Your task to perform on an android device: turn pop-ups off in chrome Image 0: 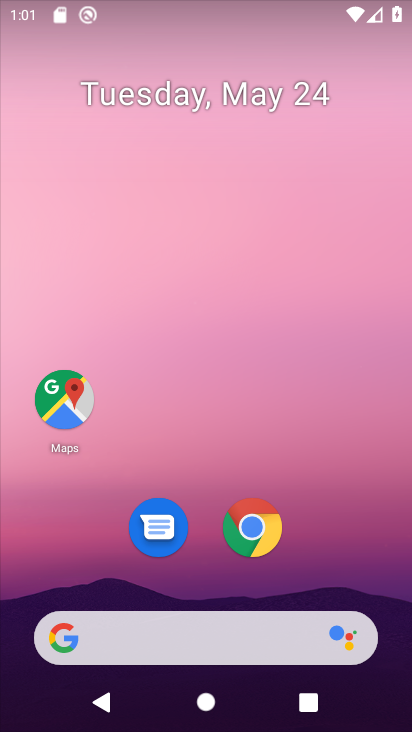
Step 0: drag from (216, 557) to (224, 9)
Your task to perform on an android device: turn pop-ups off in chrome Image 1: 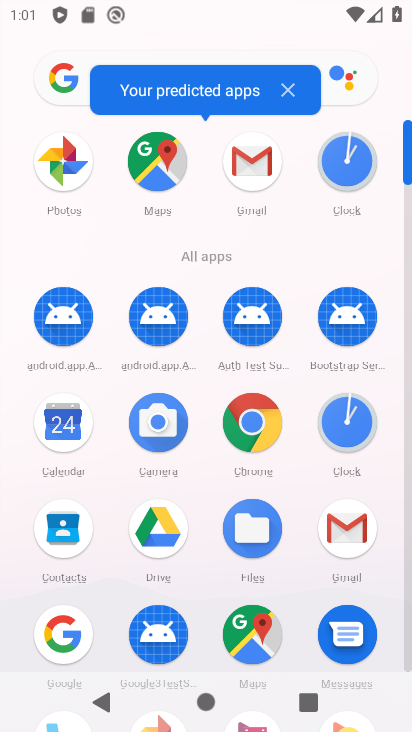
Step 1: click (248, 432)
Your task to perform on an android device: turn pop-ups off in chrome Image 2: 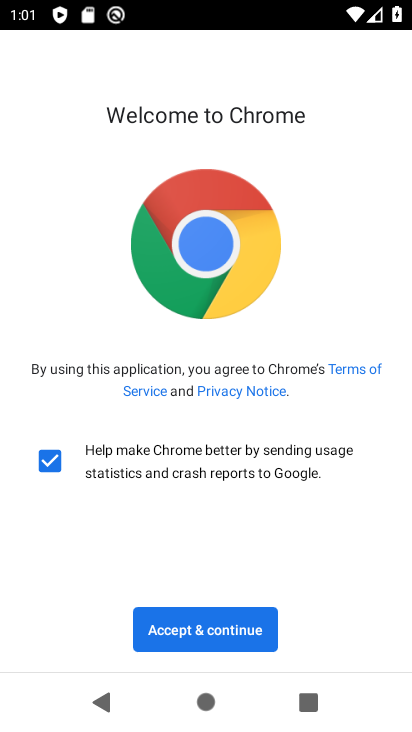
Step 2: click (215, 619)
Your task to perform on an android device: turn pop-ups off in chrome Image 3: 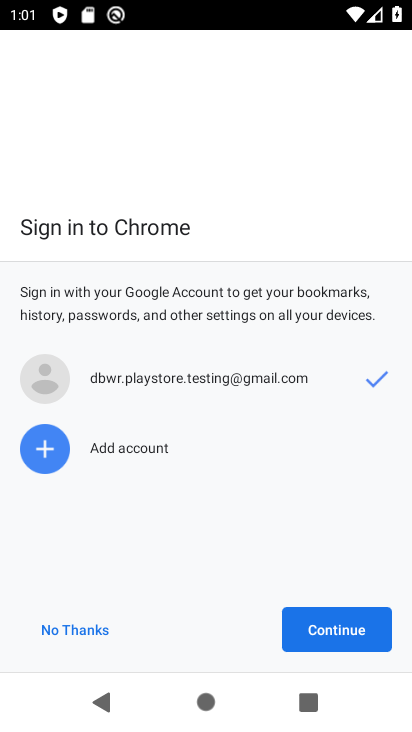
Step 3: click (310, 641)
Your task to perform on an android device: turn pop-ups off in chrome Image 4: 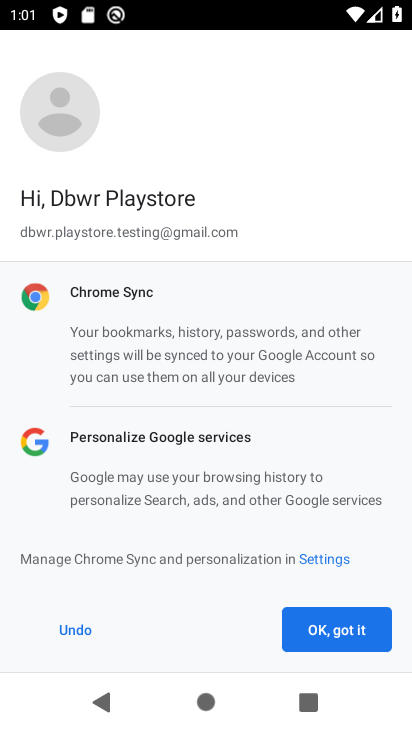
Step 4: click (310, 641)
Your task to perform on an android device: turn pop-ups off in chrome Image 5: 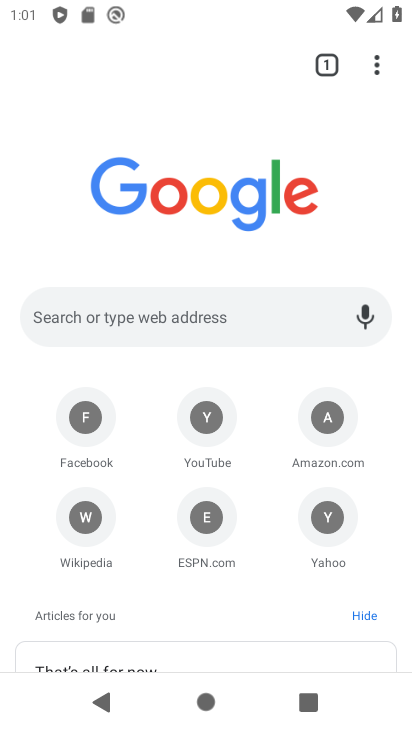
Step 5: click (377, 64)
Your task to perform on an android device: turn pop-ups off in chrome Image 6: 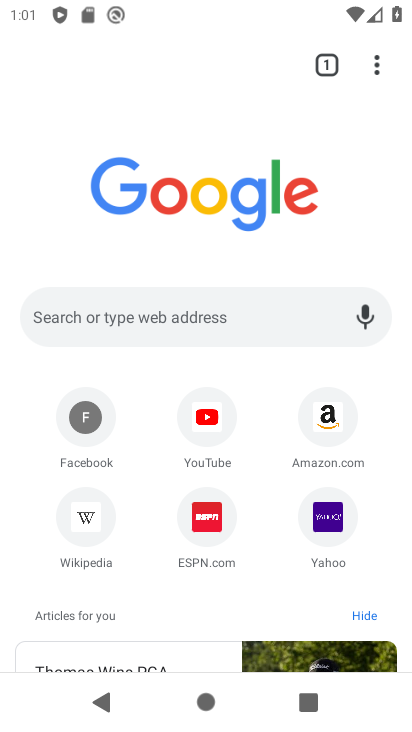
Step 6: click (380, 66)
Your task to perform on an android device: turn pop-ups off in chrome Image 7: 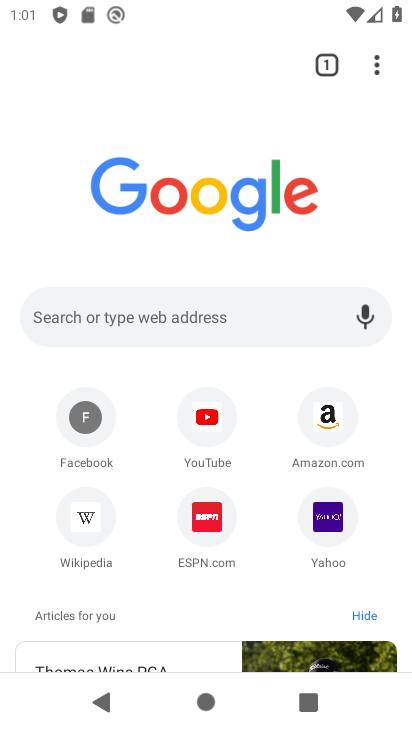
Step 7: click (380, 71)
Your task to perform on an android device: turn pop-ups off in chrome Image 8: 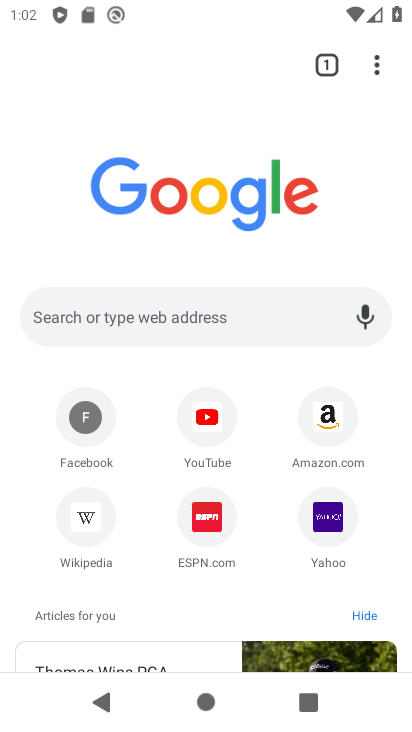
Step 8: click (373, 60)
Your task to perform on an android device: turn pop-ups off in chrome Image 9: 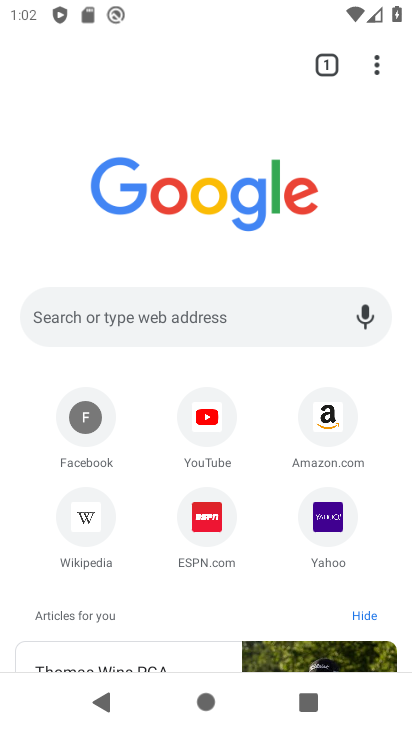
Step 9: click (375, 61)
Your task to perform on an android device: turn pop-ups off in chrome Image 10: 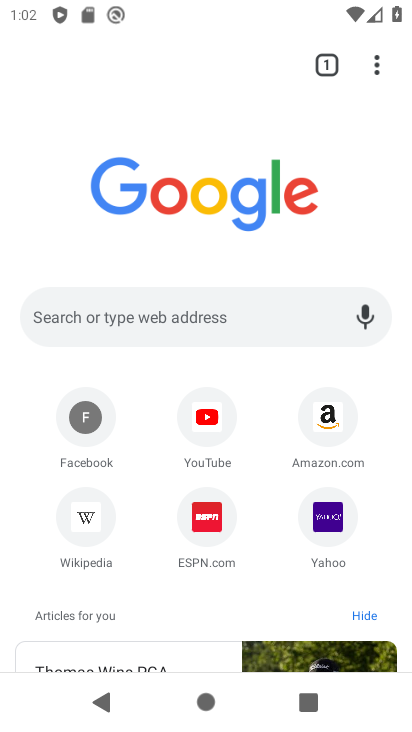
Step 10: click (381, 71)
Your task to perform on an android device: turn pop-ups off in chrome Image 11: 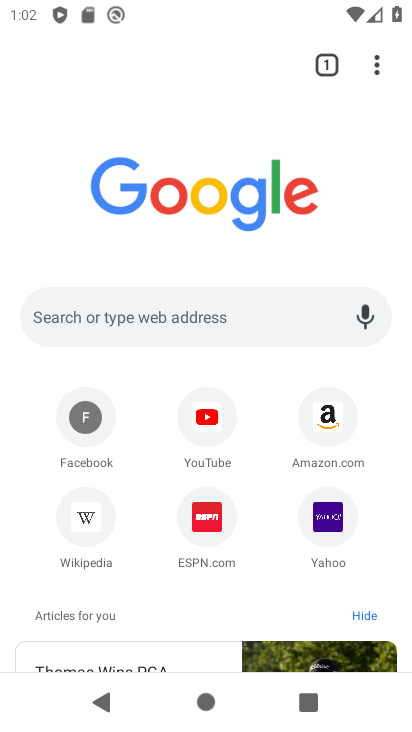
Step 11: click (380, 69)
Your task to perform on an android device: turn pop-ups off in chrome Image 12: 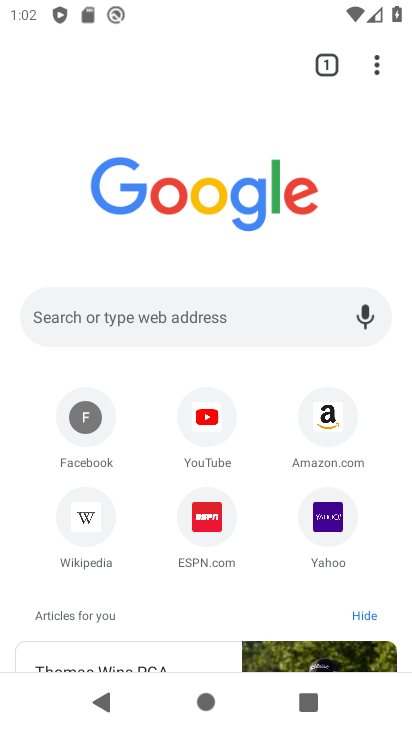
Step 12: click (377, 61)
Your task to perform on an android device: turn pop-ups off in chrome Image 13: 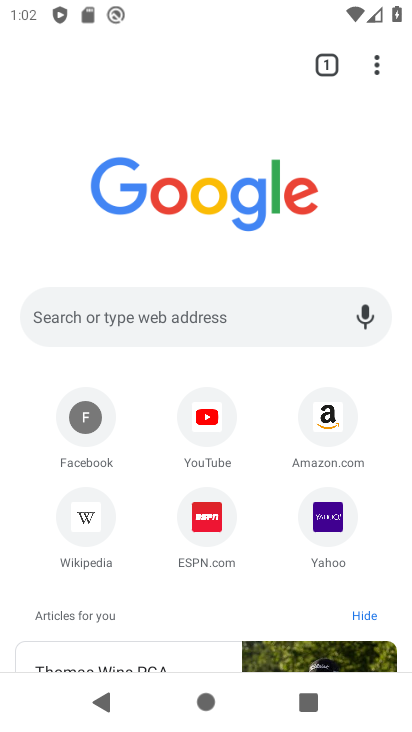
Step 13: click (379, 61)
Your task to perform on an android device: turn pop-ups off in chrome Image 14: 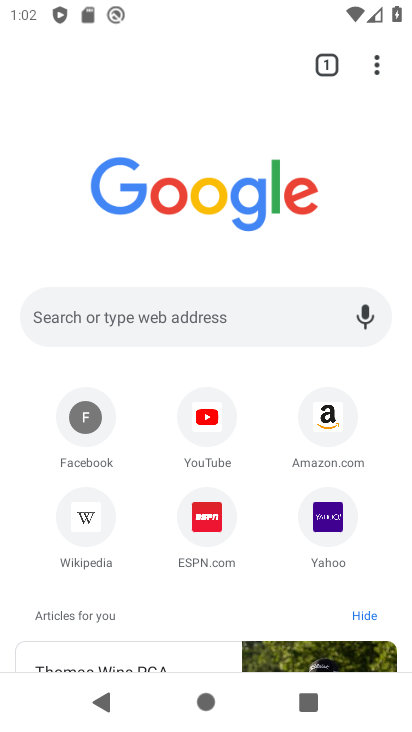
Step 14: click (386, 68)
Your task to perform on an android device: turn pop-ups off in chrome Image 15: 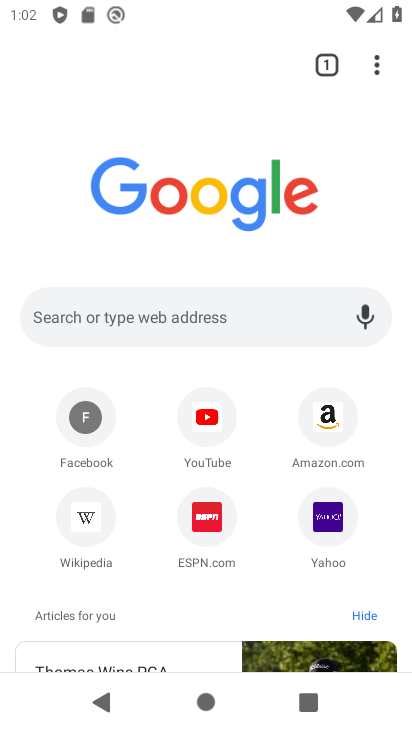
Step 15: click (374, 60)
Your task to perform on an android device: turn pop-ups off in chrome Image 16: 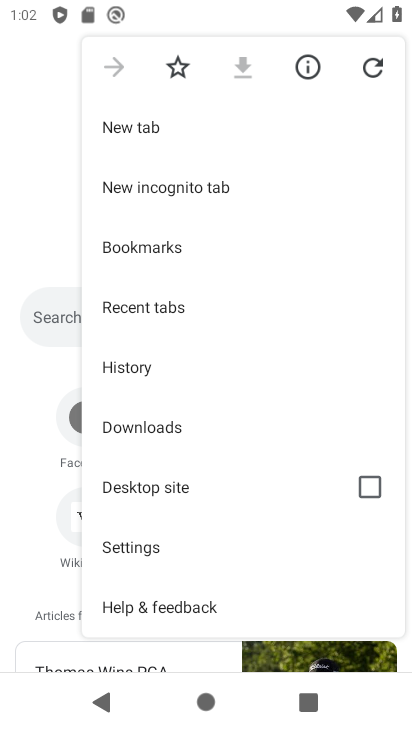
Step 16: click (148, 556)
Your task to perform on an android device: turn pop-ups off in chrome Image 17: 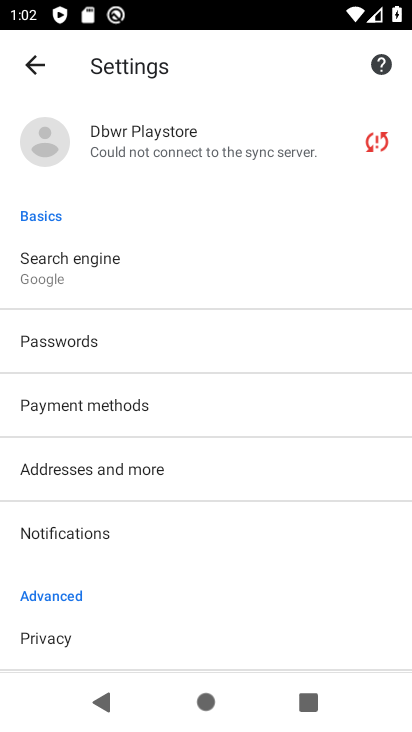
Step 17: drag from (103, 597) to (224, 126)
Your task to perform on an android device: turn pop-ups off in chrome Image 18: 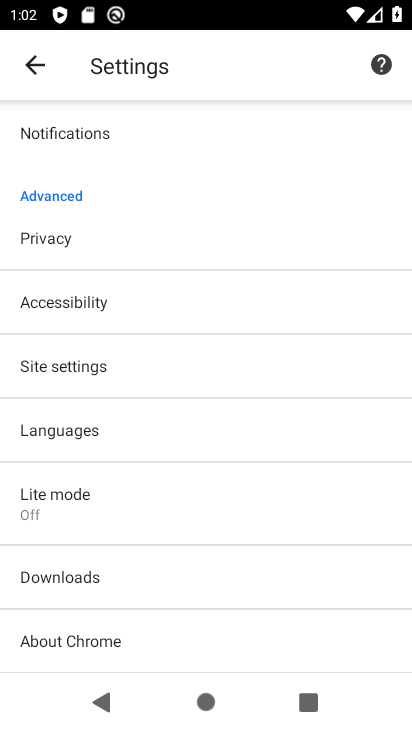
Step 18: drag from (95, 611) to (143, 240)
Your task to perform on an android device: turn pop-ups off in chrome Image 19: 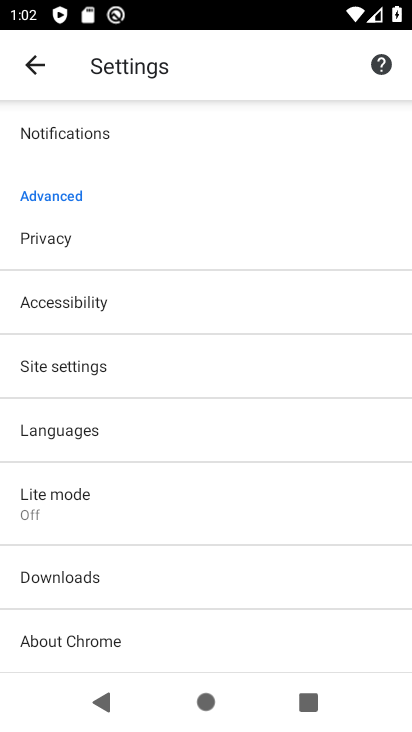
Step 19: click (62, 368)
Your task to perform on an android device: turn pop-ups off in chrome Image 20: 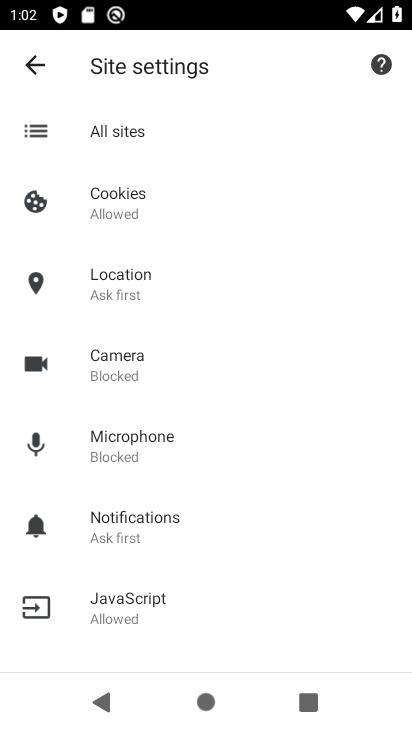
Step 20: drag from (153, 613) to (189, 208)
Your task to perform on an android device: turn pop-ups off in chrome Image 21: 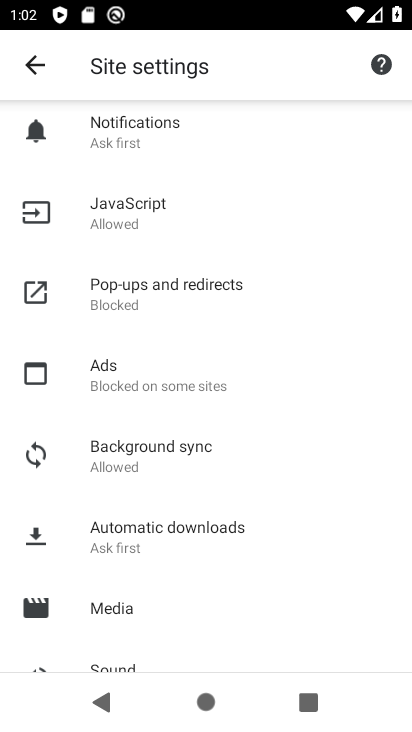
Step 21: drag from (148, 600) to (209, 229)
Your task to perform on an android device: turn pop-ups off in chrome Image 22: 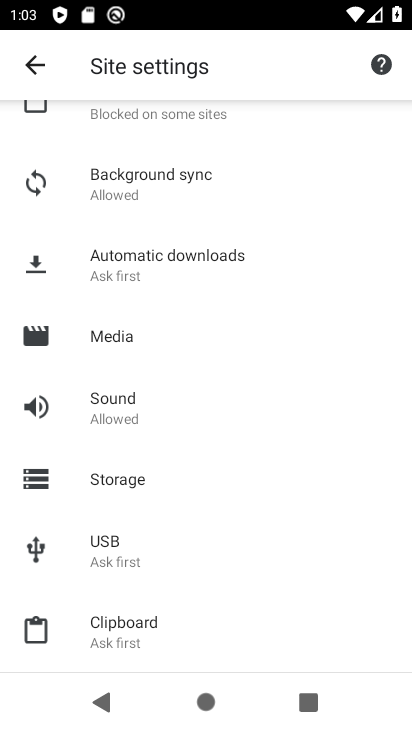
Step 22: drag from (205, 295) to (144, 661)
Your task to perform on an android device: turn pop-ups off in chrome Image 23: 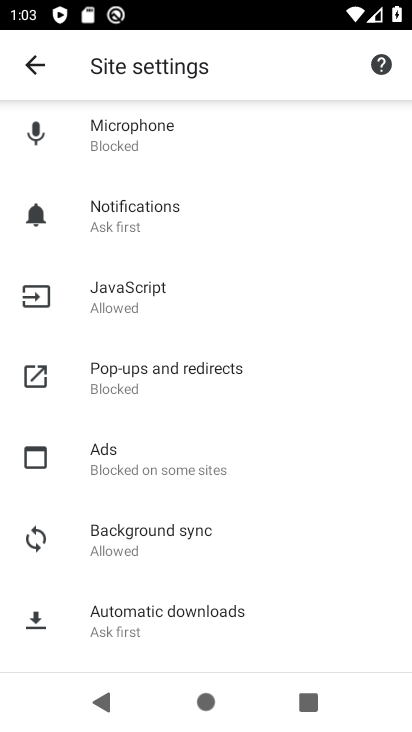
Step 23: click (142, 389)
Your task to perform on an android device: turn pop-ups off in chrome Image 24: 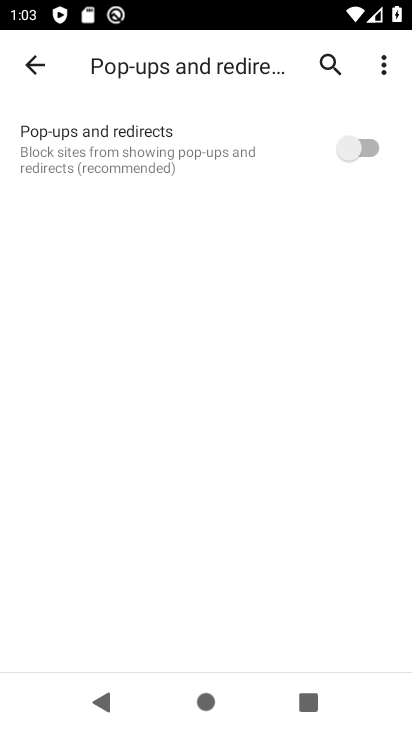
Step 24: task complete